Your task to perform on an android device: Is it going to rain today? Image 0: 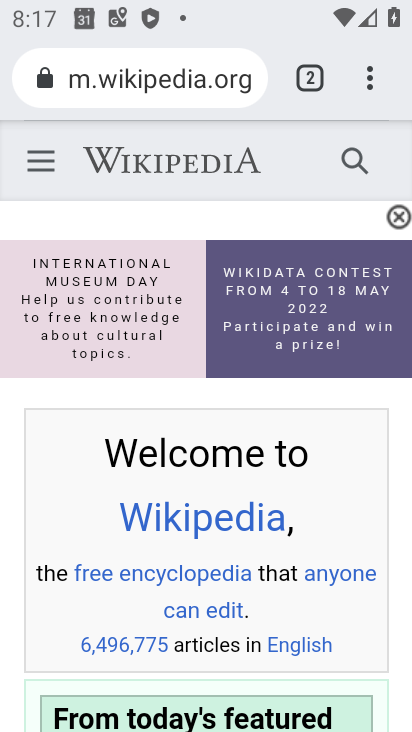
Step 0: press home button
Your task to perform on an android device: Is it going to rain today? Image 1: 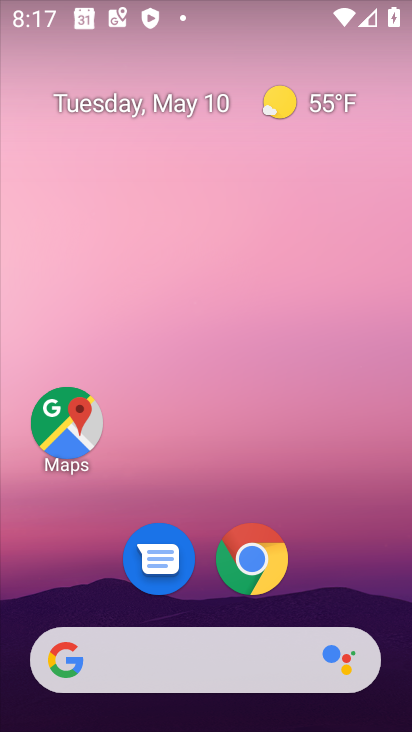
Step 1: click (272, 105)
Your task to perform on an android device: Is it going to rain today? Image 2: 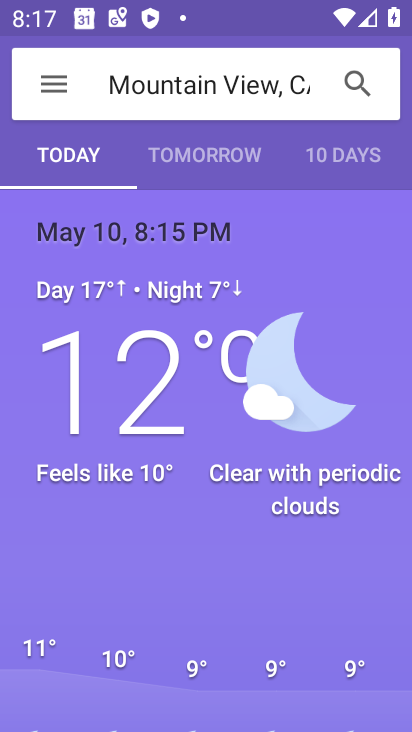
Step 2: task complete